Your task to perform on an android device: see tabs open on other devices in the chrome app Image 0: 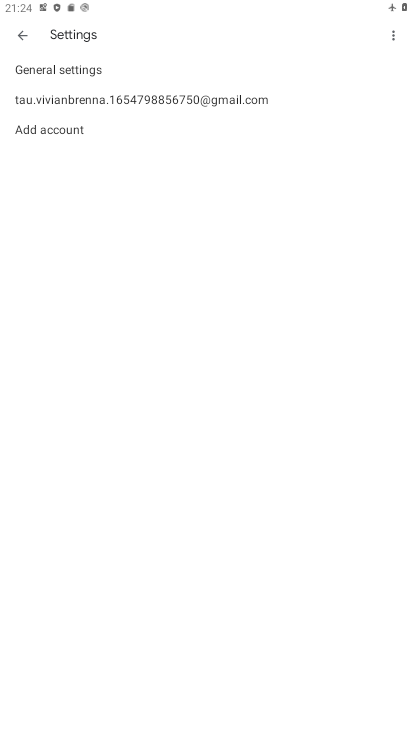
Step 0: press home button
Your task to perform on an android device: see tabs open on other devices in the chrome app Image 1: 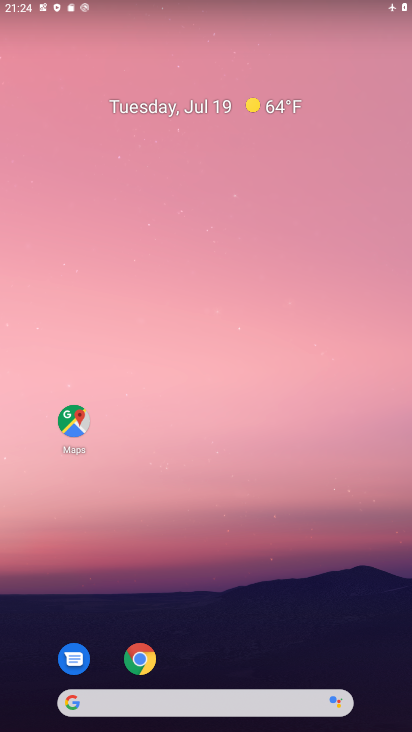
Step 1: click (145, 653)
Your task to perform on an android device: see tabs open on other devices in the chrome app Image 2: 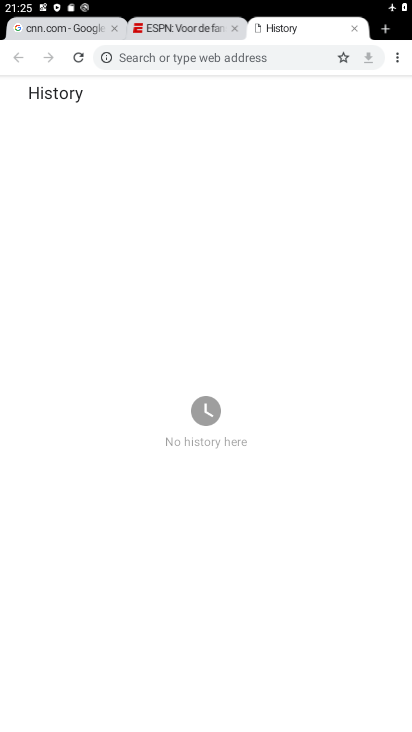
Step 2: click (393, 60)
Your task to perform on an android device: see tabs open on other devices in the chrome app Image 3: 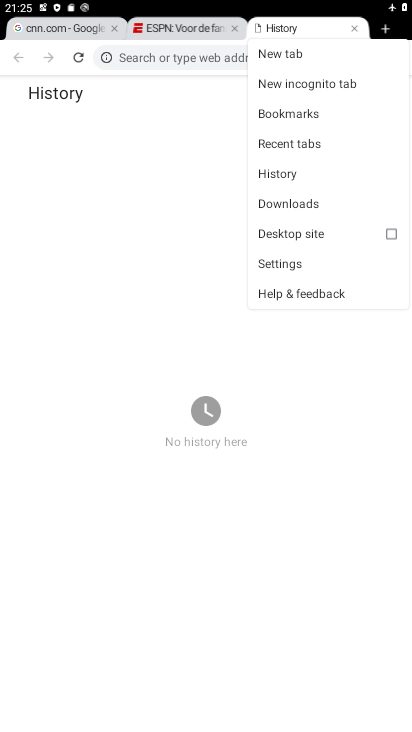
Step 3: click (315, 152)
Your task to perform on an android device: see tabs open on other devices in the chrome app Image 4: 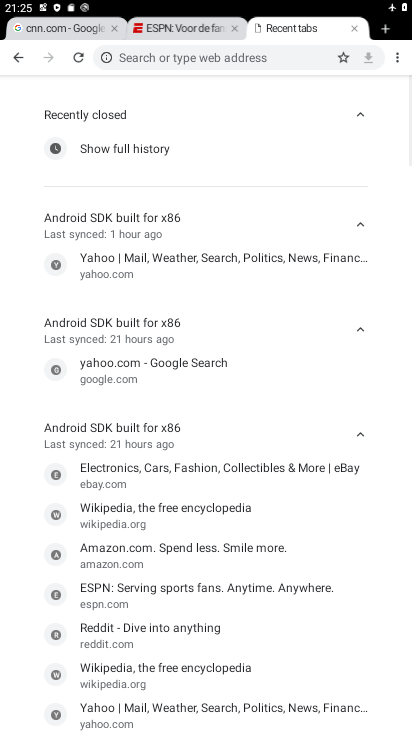
Step 4: task complete